Your task to perform on an android device: toggle notification dots Image 0: 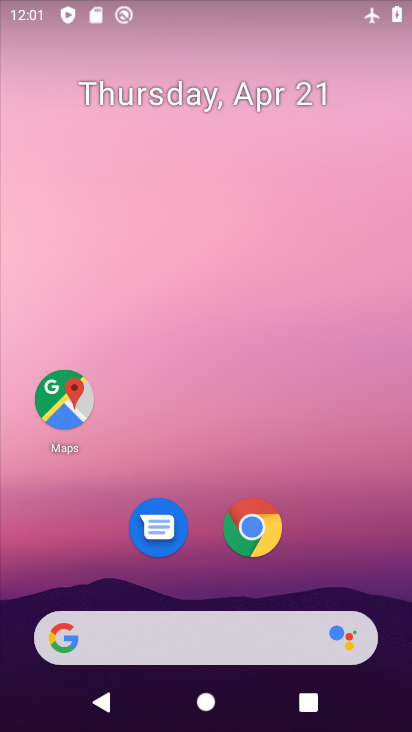
Step 0: drag from (349, 583) to (298, 54)
Your task to perform on an android device: toggle notification dots Image 1: 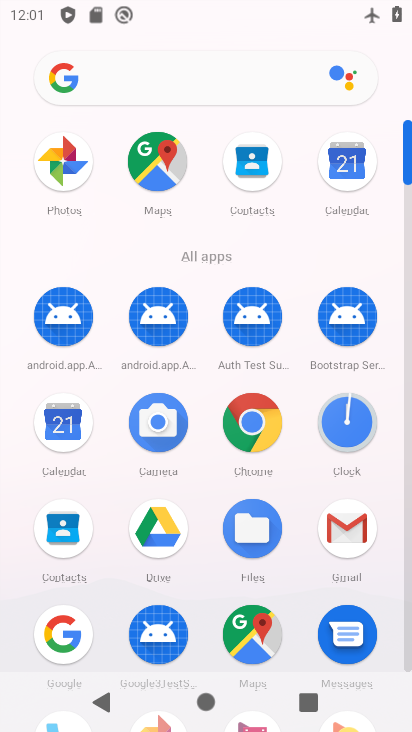
Step 1: click (405, 664)
Your task to perform on an android device: toggle notification dots Image 2: 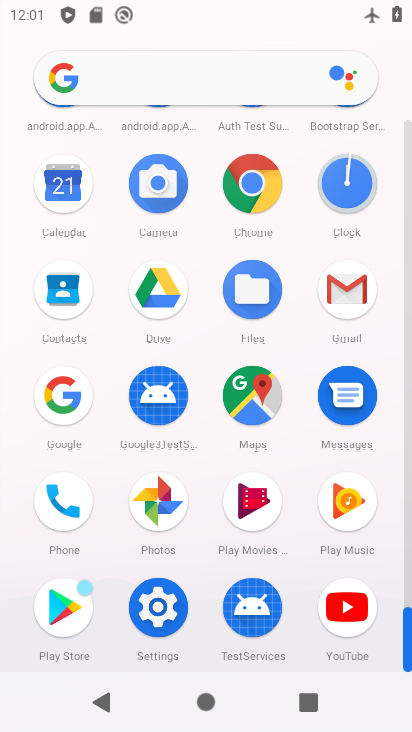
Step 2: click (134, 602)
Your task to perform on an android device: toggle notification dots Image 3: 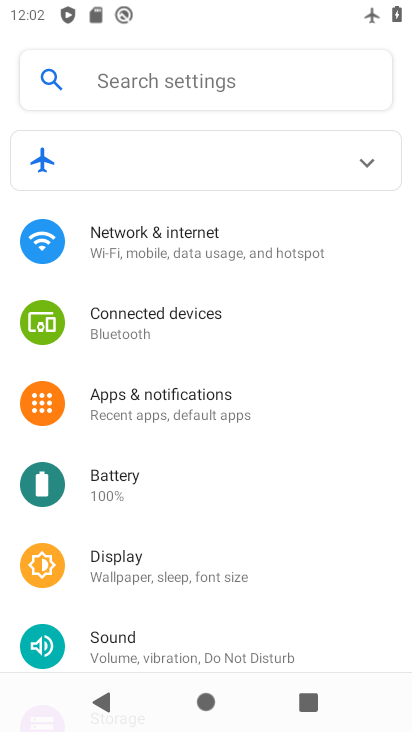
Step 3: click (211, 406)
Your task to perform on an android device: toggle notification dots Image 4: 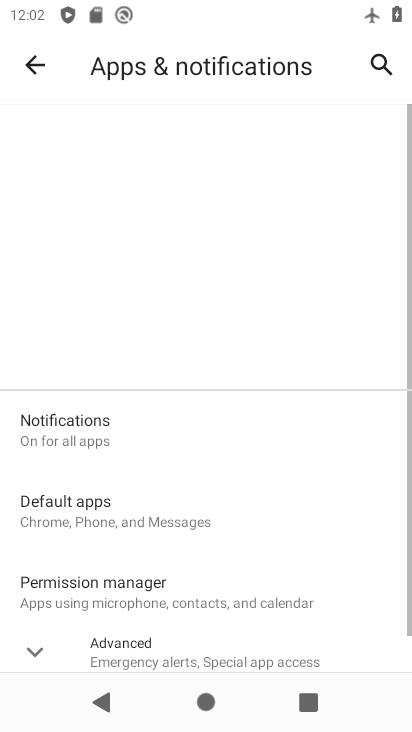
Step 4: click (190, 427)
Your task to perform on an android device: toggle notification dots Image 5: 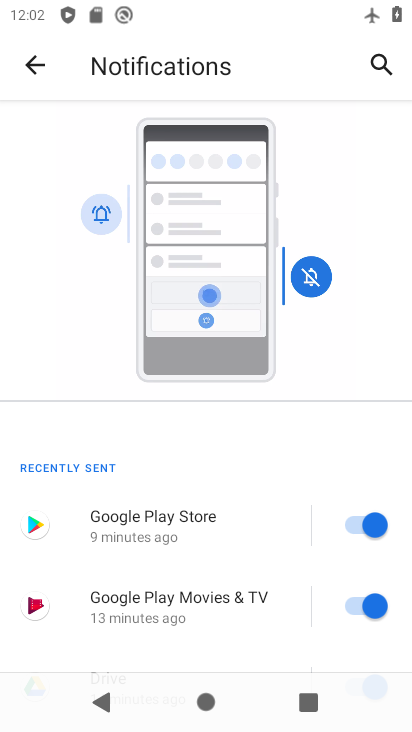
Step 5: drag from (174, 631) to (265, 120)
Your task to perform on an android device: toggle notification dots Image 6: 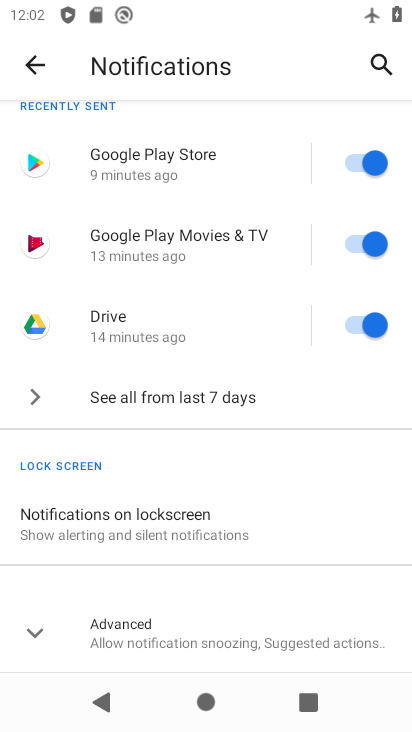
Step 6: click (34, 627)
Your task to perform on an android device: toggle notification dots Image 7: 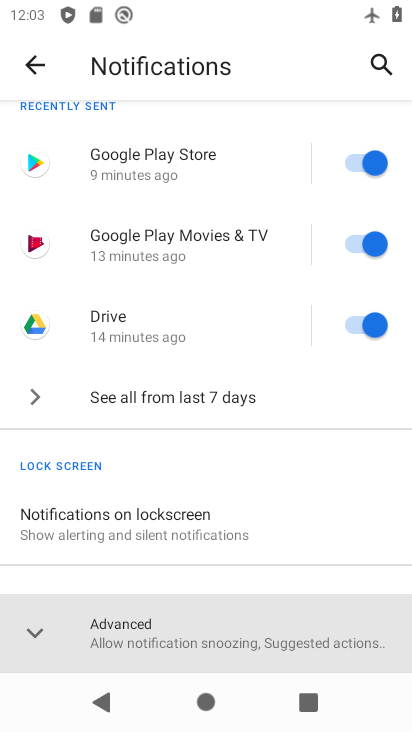
Step 7: drag from (108, 643) to (200, 358)
Your task to perform on an android device: toggle notification dots Image 8: 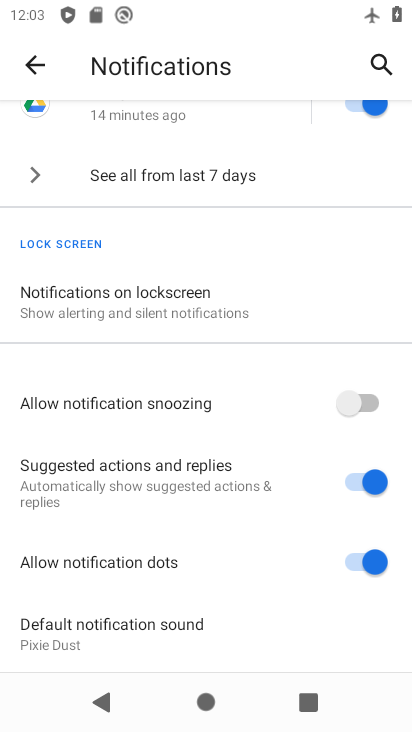
Step 8: click (193, 565)
Your task to perform on an android device: toggle notification dots Image 9: 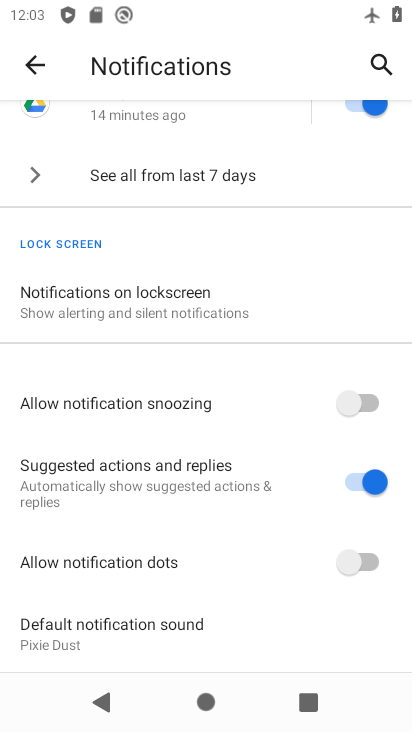
Step 9: task complete